Your task to perform on an android device: Open Chrome and go to the settings page Image 0: 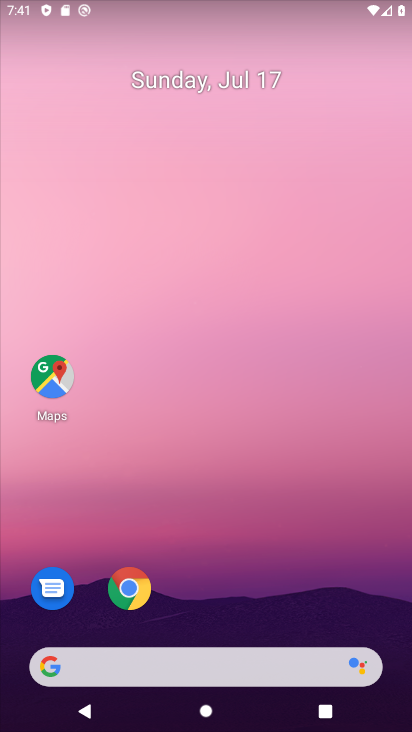
Step 0: drag from (247, 685) to (217, 101)
Your task to perform on an android device: Open Chrome and go to the settings page Image 1: 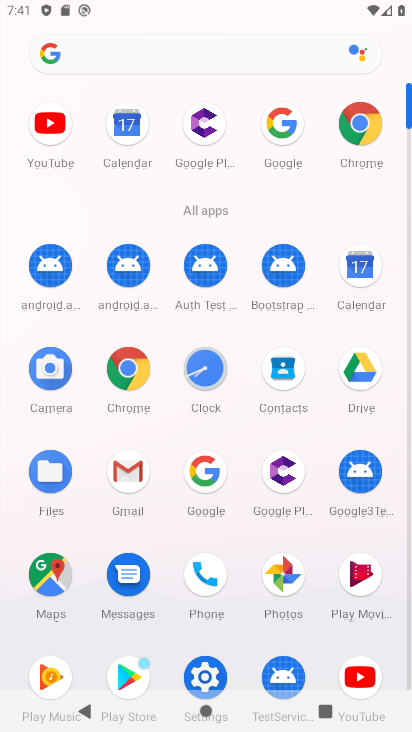
Step 1: drag from (299, 652) to (298, 276)
Your task to perform on an android device: Open Chrome and go to the settings page Image 2: 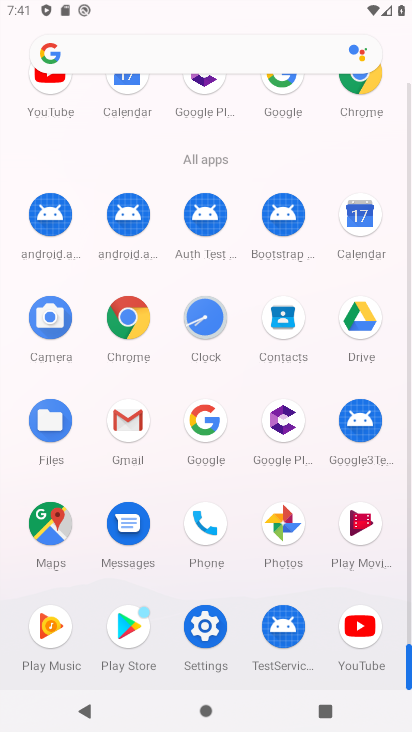
Step 2: click (142, 334)
Your task to perform on an android device: Open Chrome and go to the settings page Image 3: 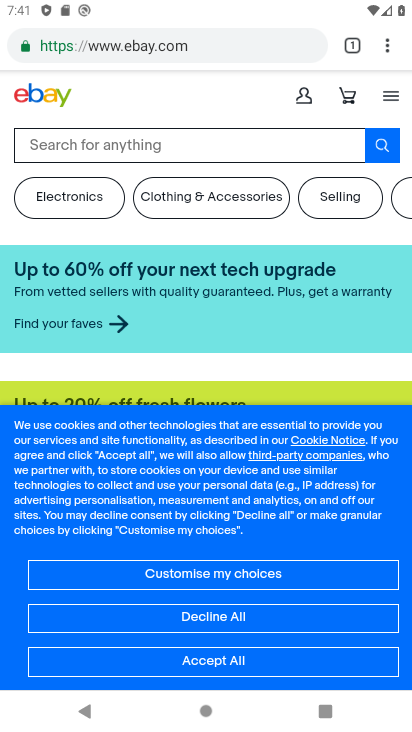
Step 3: click (393, 47)
Your task to perform on an android device: Open Chrome and go to the settings page Image 4: 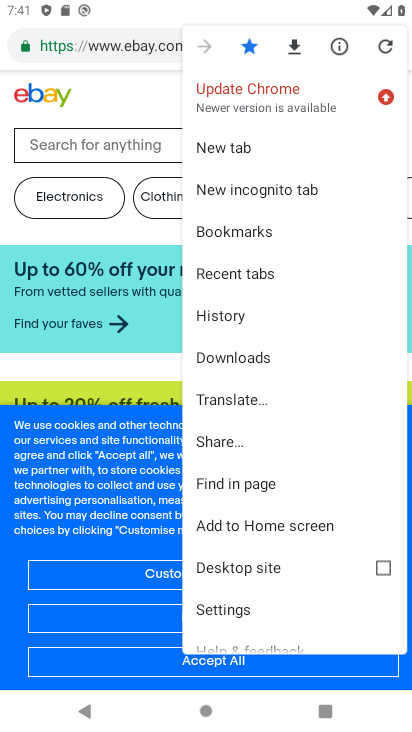
Step 4: drag from (303, 465) to (287, 238)
Your task to perform on an android device: Open Chrome and go to the settings page Image 5: 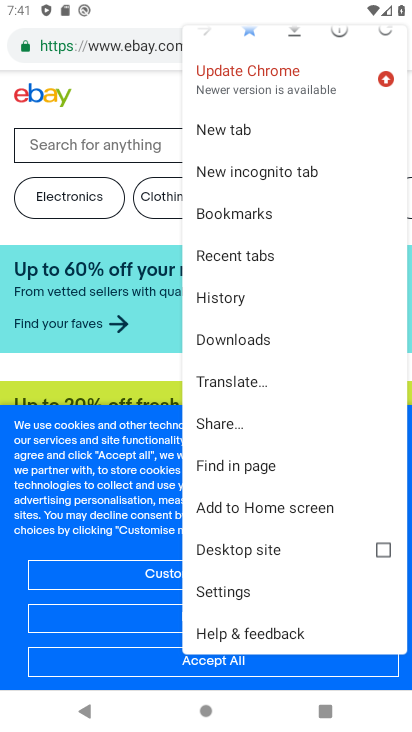
Step 5: click (246, 595)
Your task to perform on an android device: Open Chrome and go to the settings page Image 6: 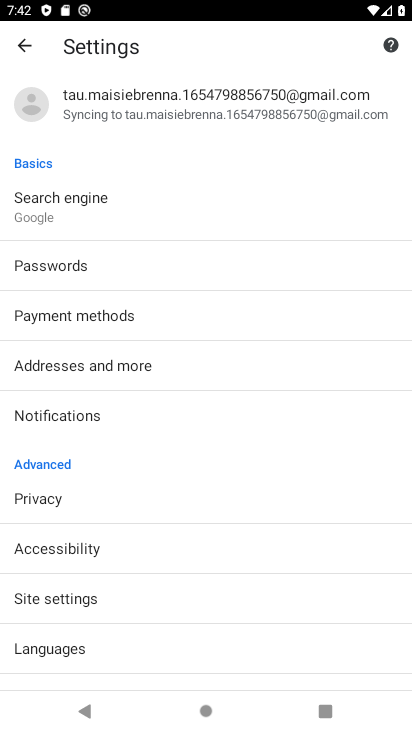
Step 6: task complete